Your task to perform on an android device: Go to battery settings Image 0: 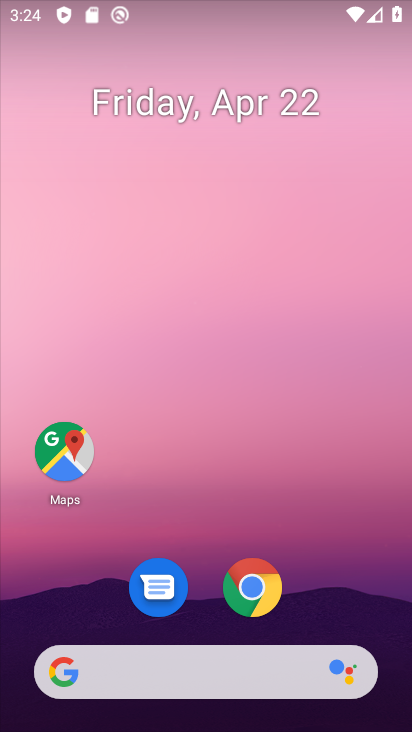
Step 0: drag from (340, 542) to (329, 38)
Your task to perform on an android device: Go to battery settings Image 1: 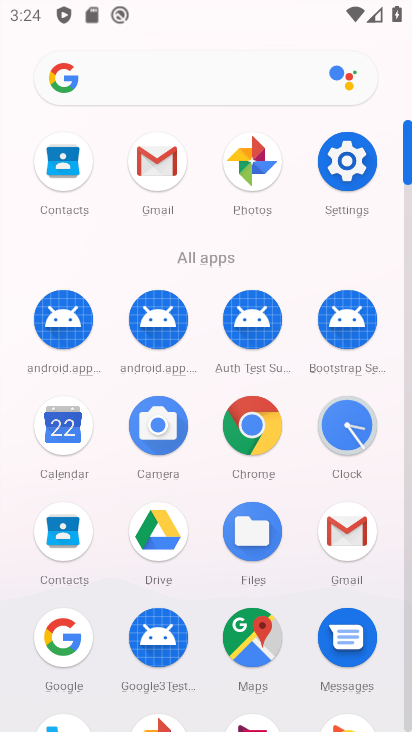
Step 1: click (347, 174)
Your task to perform on an android device: Go to battery settings Image 2: 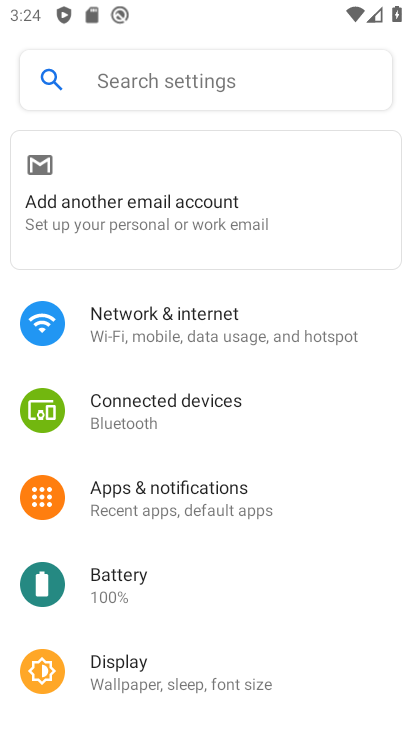
Step 2: click (115, 589)
Your task to perform on an android device: Go to battery settings Image 3: 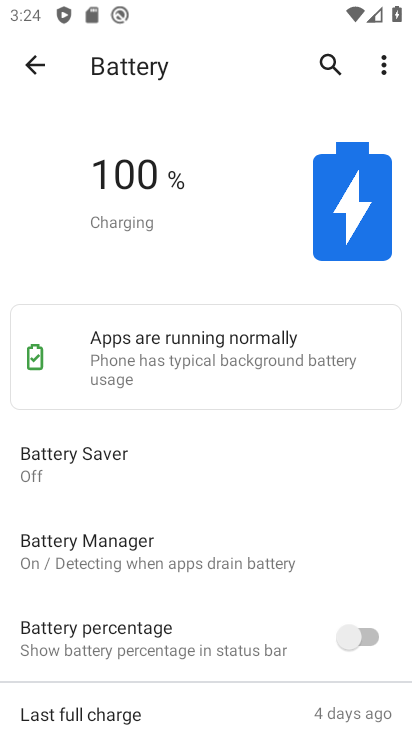
Step 3: task complete